Your task to perform on an android device: Go to internet settings Image 0: 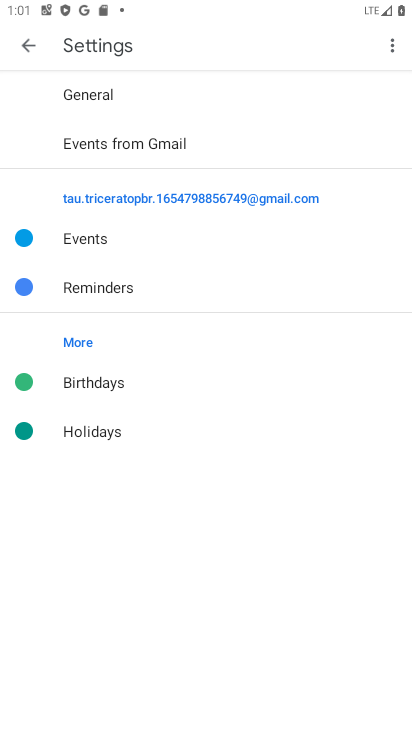
Step 0: press home button
Your task to perform on an android device: Go to internet settings Image 1: 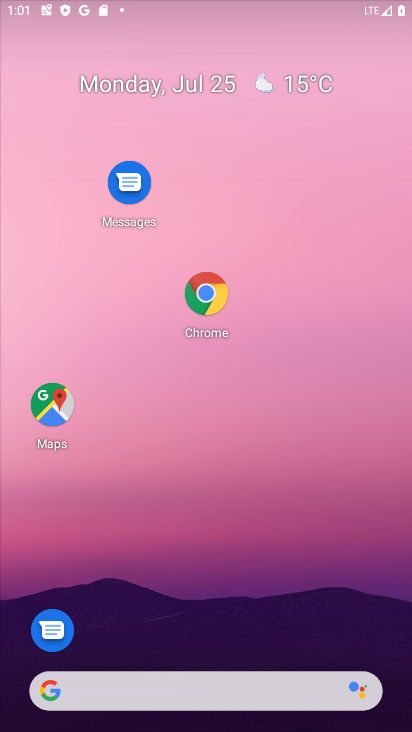
Step 1: drag from (250, 577) to (158, 1)
Your task to perform on an android device: Go to internet settings Image 2: 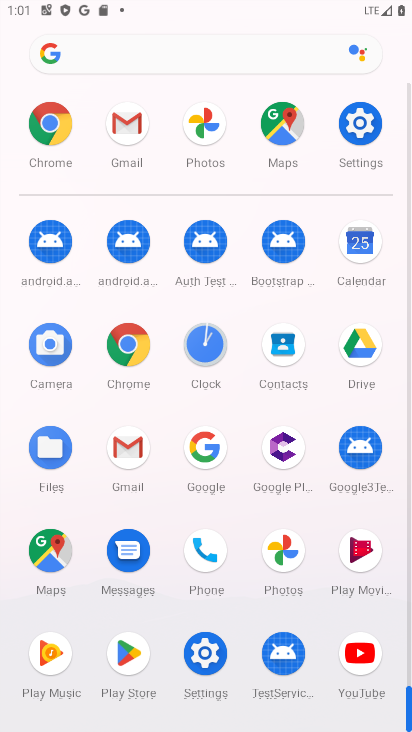
Step 2: click (351, 143)
Your task to perform on an android device: Go to internet settings Image 3: 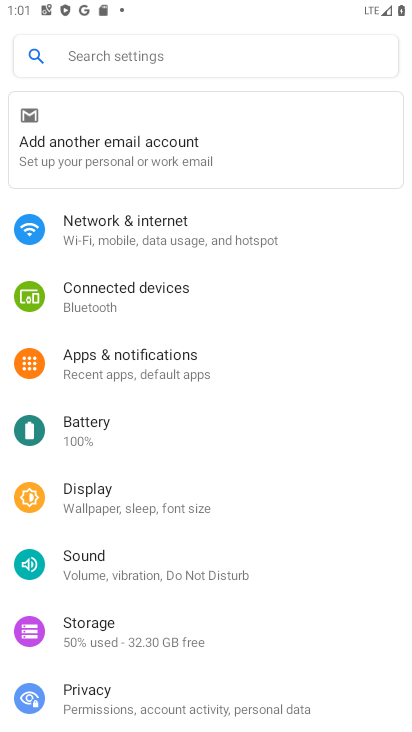
Step 3: click (121, 240)
Your task to perform on an android device: Go to internet settings Image 4: 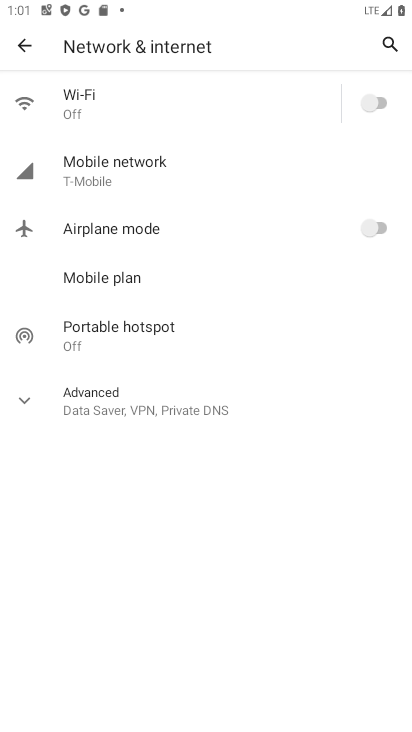
Step 4: task complete